Your task to perform on an android device: Show me popular games on the Play Store Image 0: 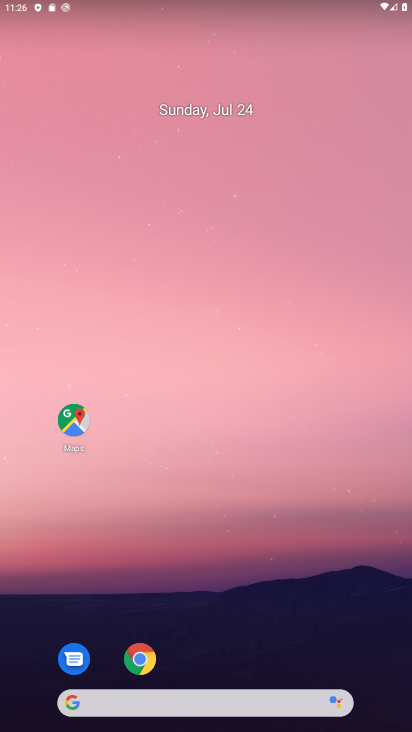
Step 0: drag from (43, 682) to (249, 56)
Your task to perform on an android device: Show me popular games on the Play Store Image 1: 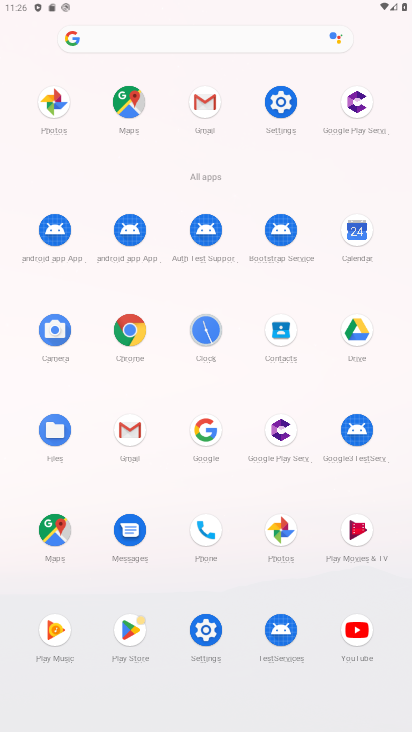
Step 1: drag from (193, 608) to (219, 334)
Your task to perform on an android device: Show me popular games on the Play Store Image 2: 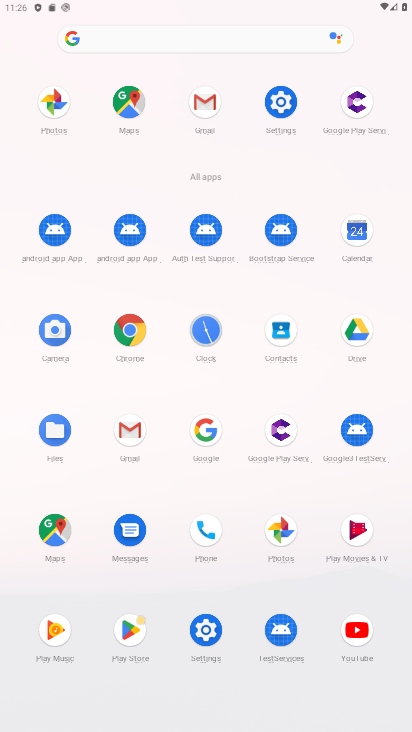
Step 2: click (192, 29)
Your task to perform on an android device: Show me popular games on the Play Store Image 3: 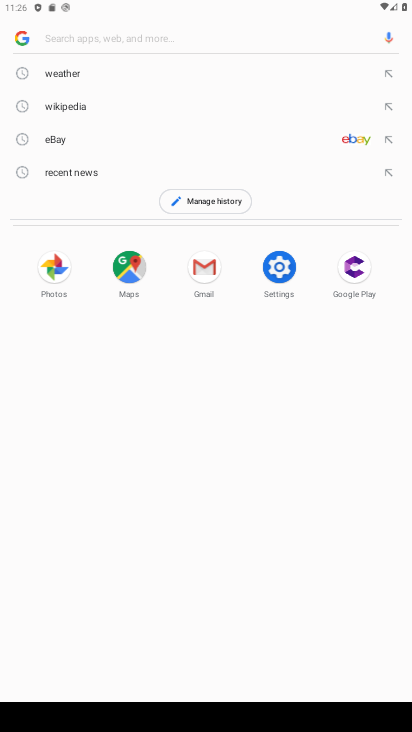
Step 3: click (86, 427)
Your task to perform on an android device: Show me popular games on the Play Store Image 4: 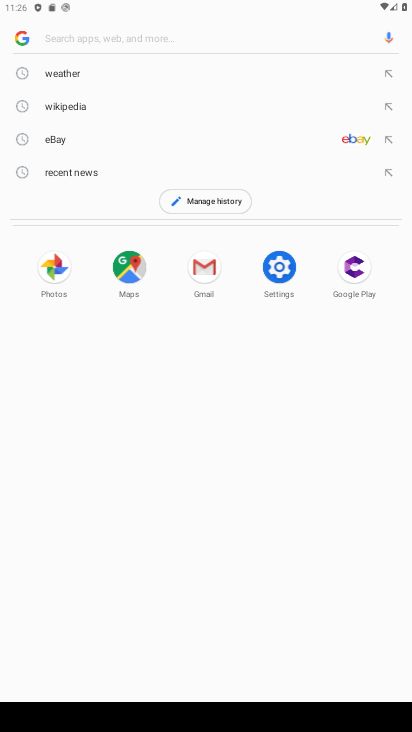
Step 4: press back button
Your task to perform on an android device: Show me popular games on the Play Store Image 5: 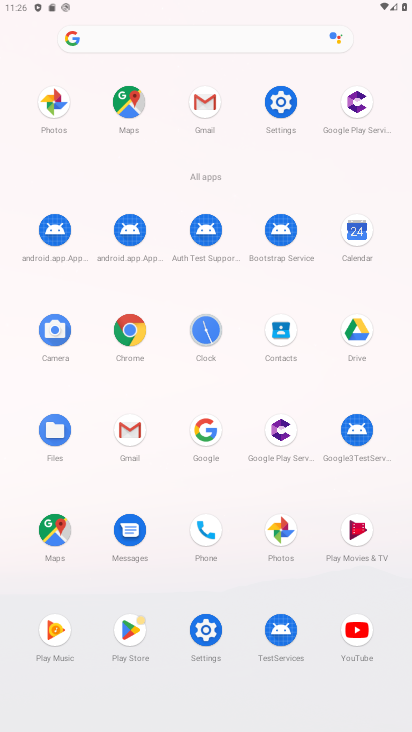
Step 5: click (121, 622)
Your task to perform on an android device: Show me popular games on the Play Store Image 6: 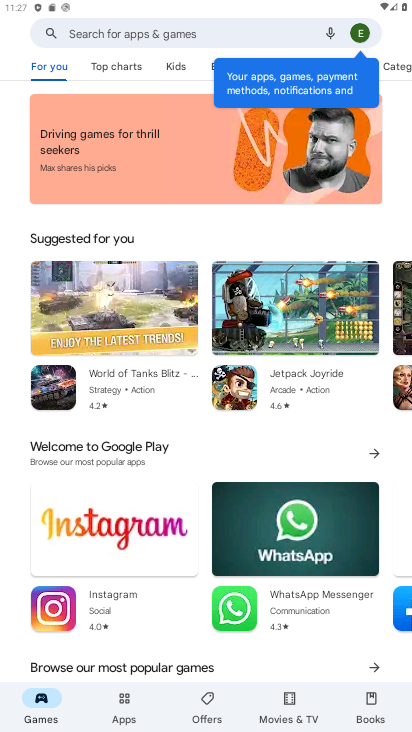
Step 6: click (92, 28)
Your task to perform on an android device: Show me popular games on the Play Store Image 7: 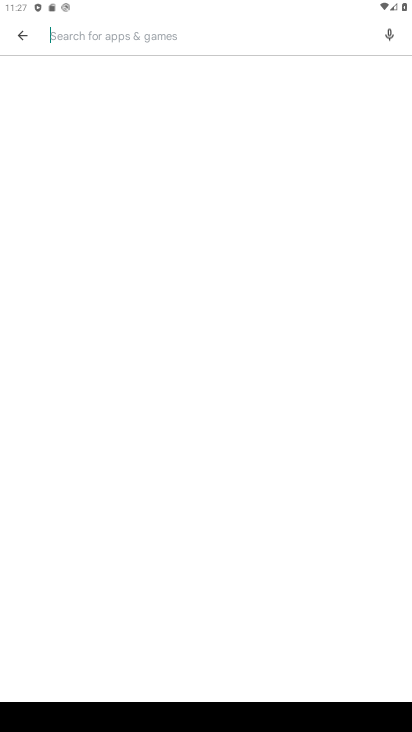
Step 7: type " popular games "
Your task to perform on an android device: Show me popular games on the Play Store Image 8: 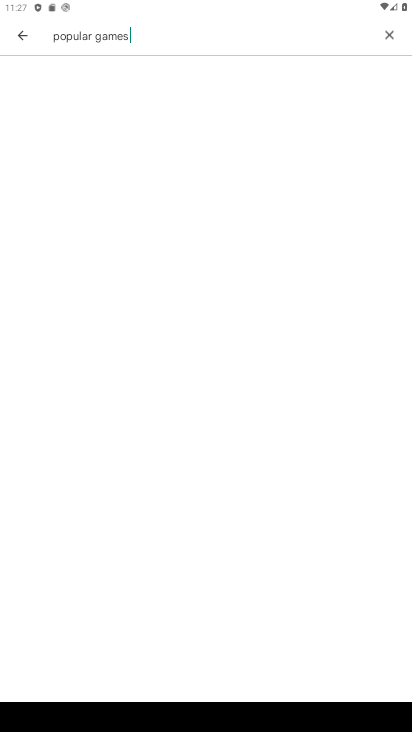
Step 8: type ""
Your task to perform on an android device: Show me popular games on the Play Store Image 9: 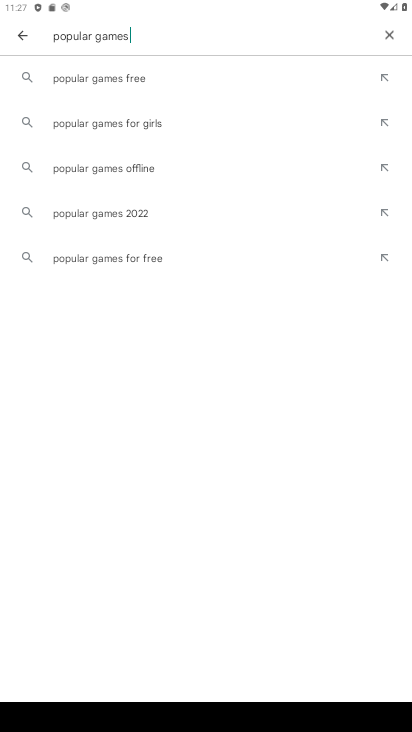
Step 9: type ""
Your task to perform on an android device: Show me popular games on the Play Store Image 10: 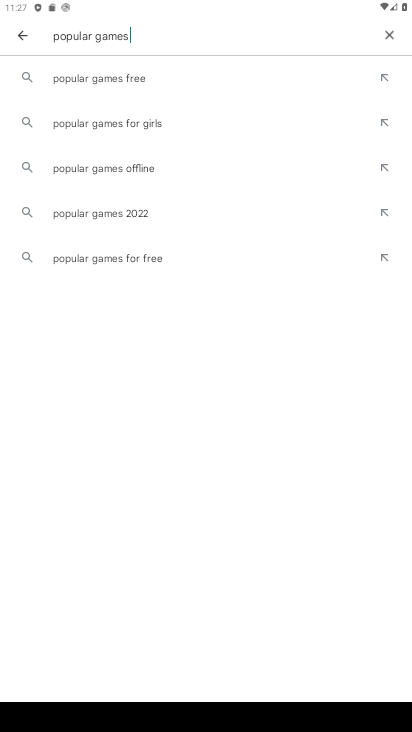
Step 10: type ""
Your task to perform on an android device: Show me popular games on the Play Store Image 11: 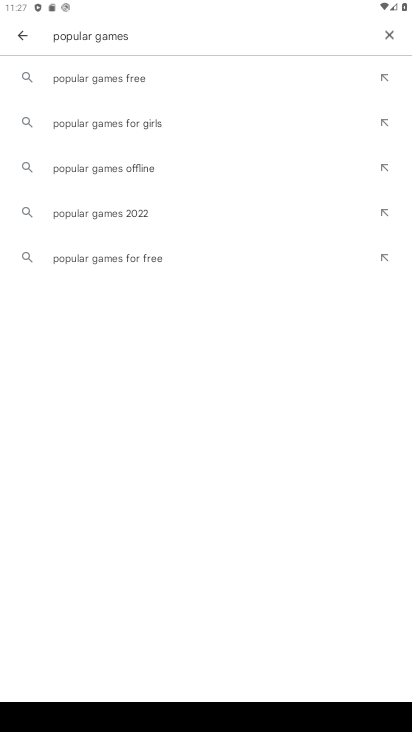
Step 11: type ""
Your task to perform on an android device: Show me popular games on the Play Store Image 12: 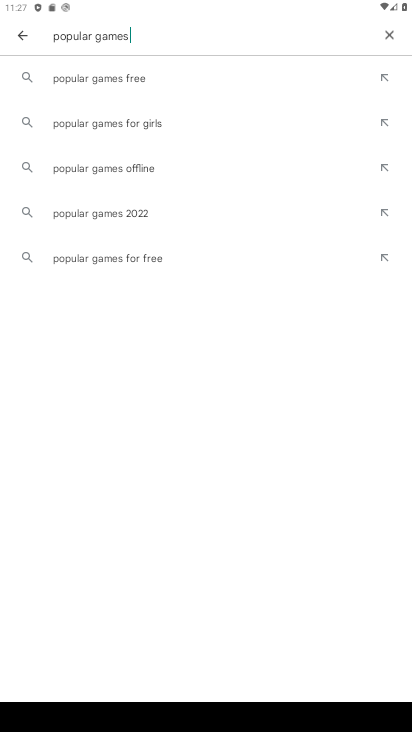
Step 12: type ""
Your task to perform on an android device: Show me popular games on the Play Store Image 13: 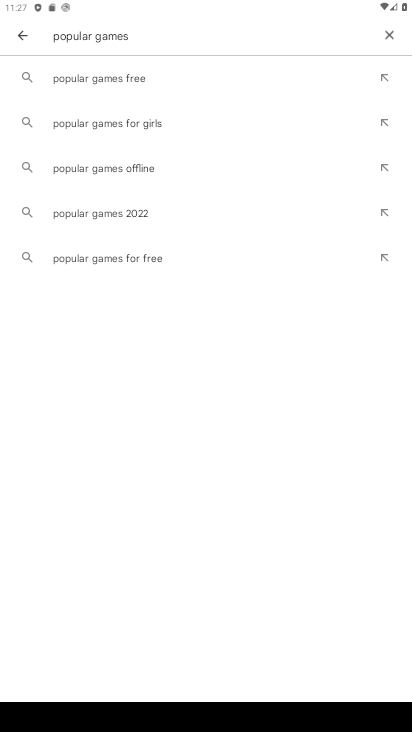
Step 13: task complete